Your task to perform on an android device: snooze an email in the gmail app Image 0: 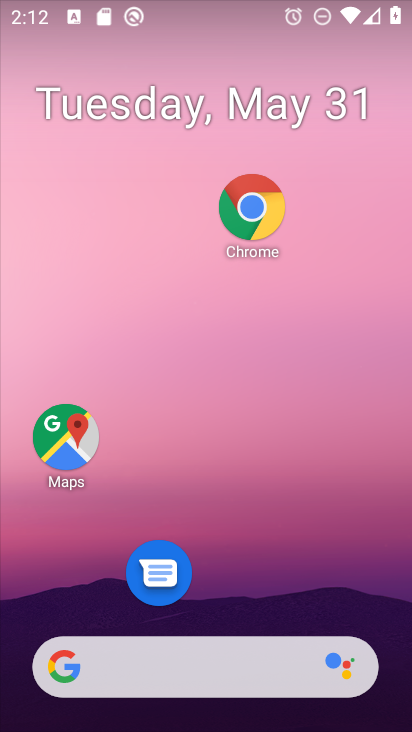
Step 0: drag from (199, 581) to (211, 62)
Your task to perform on an android device: snooze an email in the gmail app Image 1: 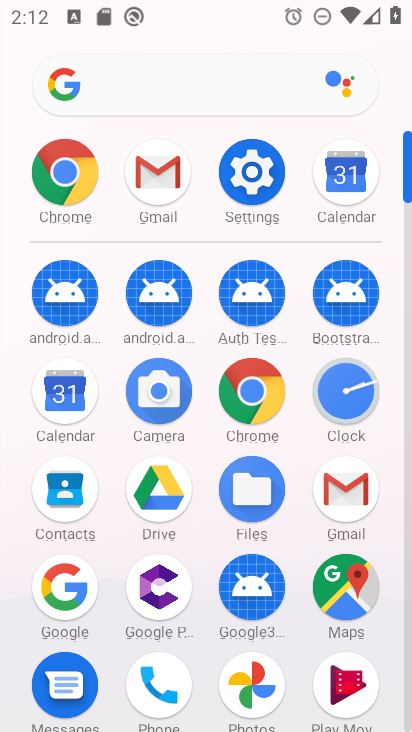
Step 1: click (356, 499)
Your task to perform on an android device: snooze an email in the gmail app Image 2: 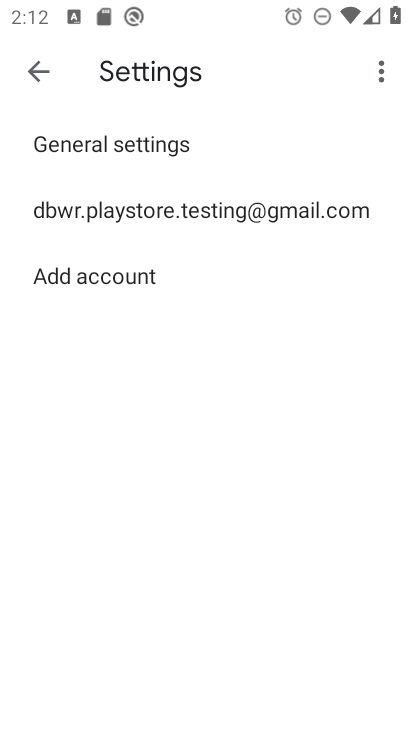
Step 2: click (44, 69)
Your task to perform on an android device: snooze an email in the gmail app Image 3: 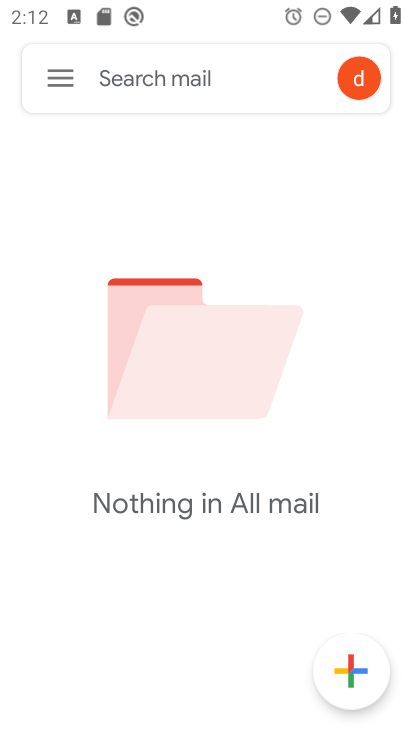
Step 3: click (65, 94)
Your task to perform on an android device: snooze an email in the gmail app Image 4: 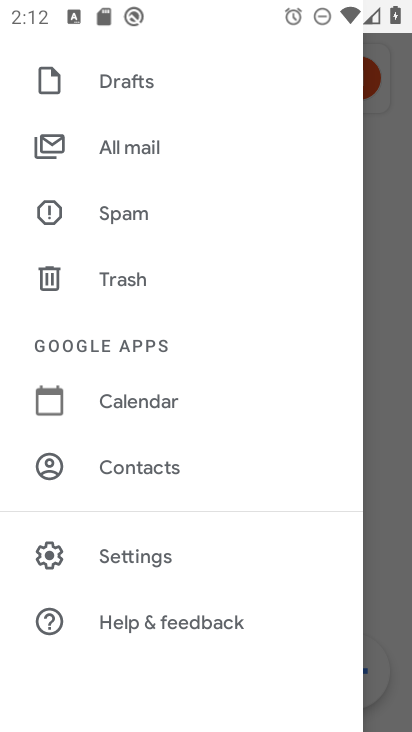
Step 4: click (132, 156)
Your task to perform on an android device: snooze an email in the gmail app Image 5: 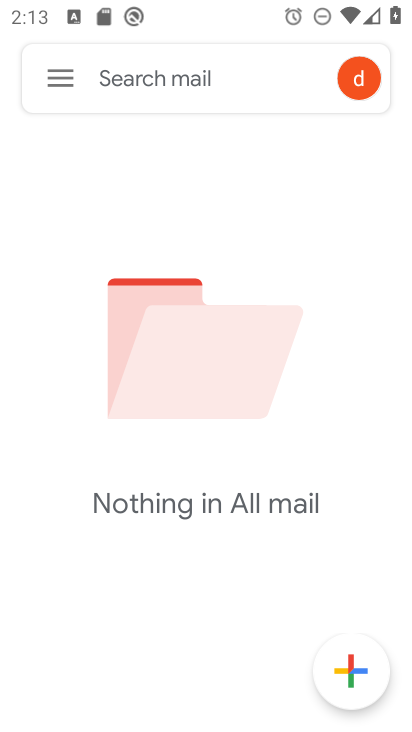
Step 5: task complete